Your task to perform on an android device: What's on my calendar tomorrow? Image 0: 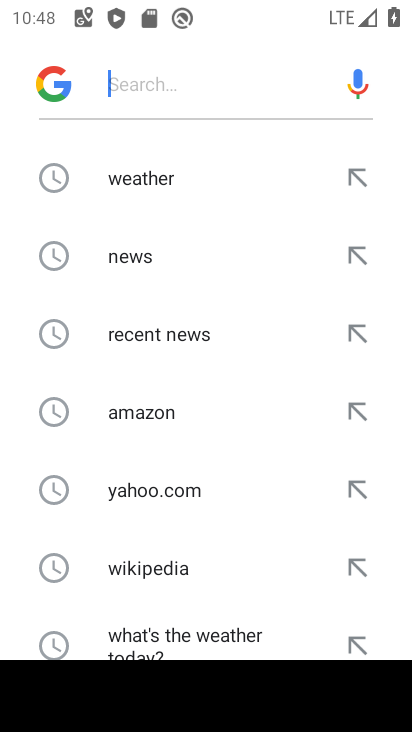
Step 0: press home button
Your task to perform on an android device: What's on my calendar tomorrow? Image 1: 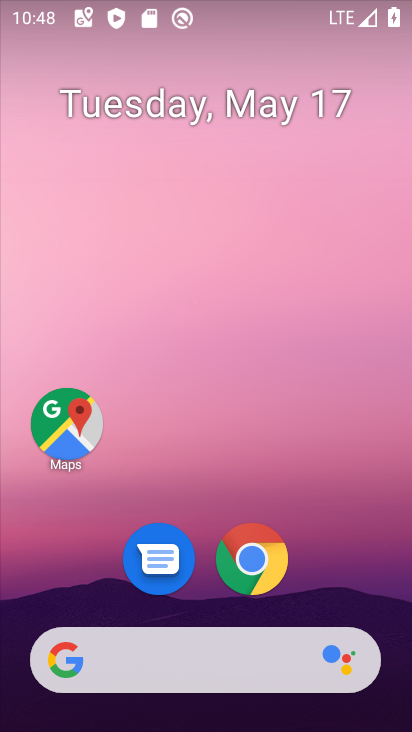
Step 1: drag from (230, 711) to (214, 228)
Your task to perform on an android device: What's on my calendar tomorrow? Image 2: 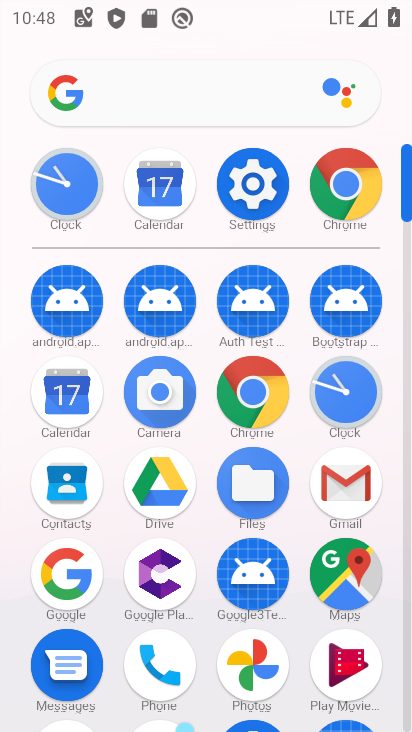
Step 2: click (73, 393)
Your task to perform on an android device: What's on my calendar tomorrow? Image 3: 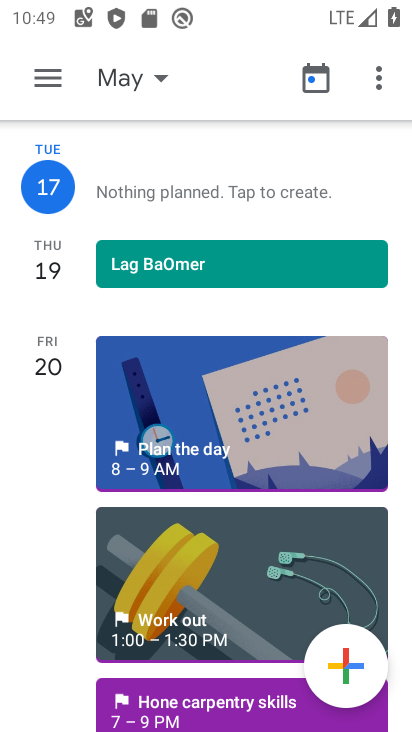
Step 3: task complete